Your task to perform on an android device: toggle notifications settings in the gmail app Image 0: 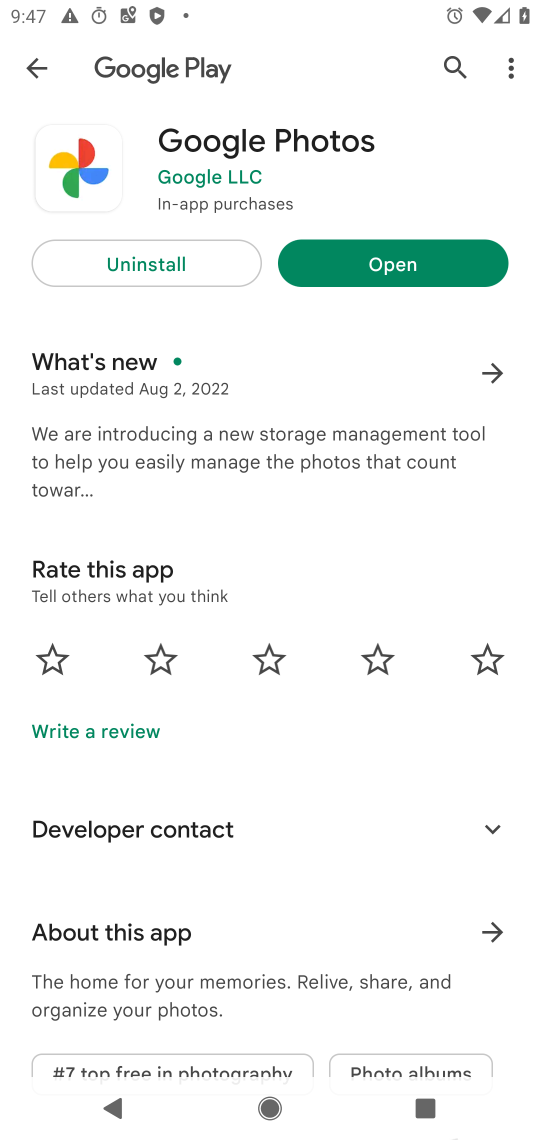
Step 0: press home button
Your task to perform on an android device: toggle notifications settings in the gmail app Image 1: 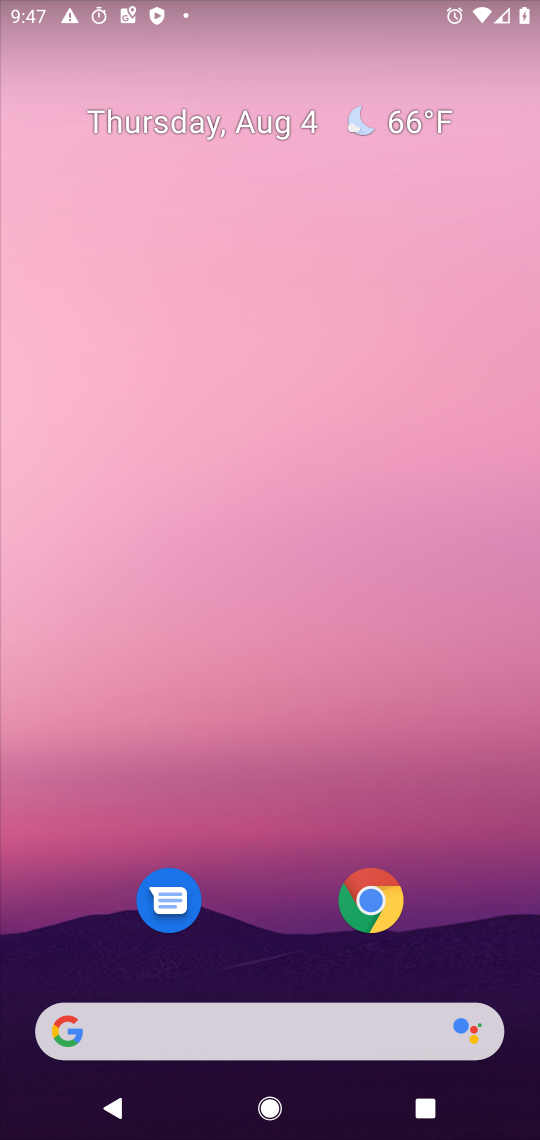
Step 1: drag from (264, 1031) to (309, 169)
Your task to perform on an android device: toggle notifications settings in the gmail app Image 2: 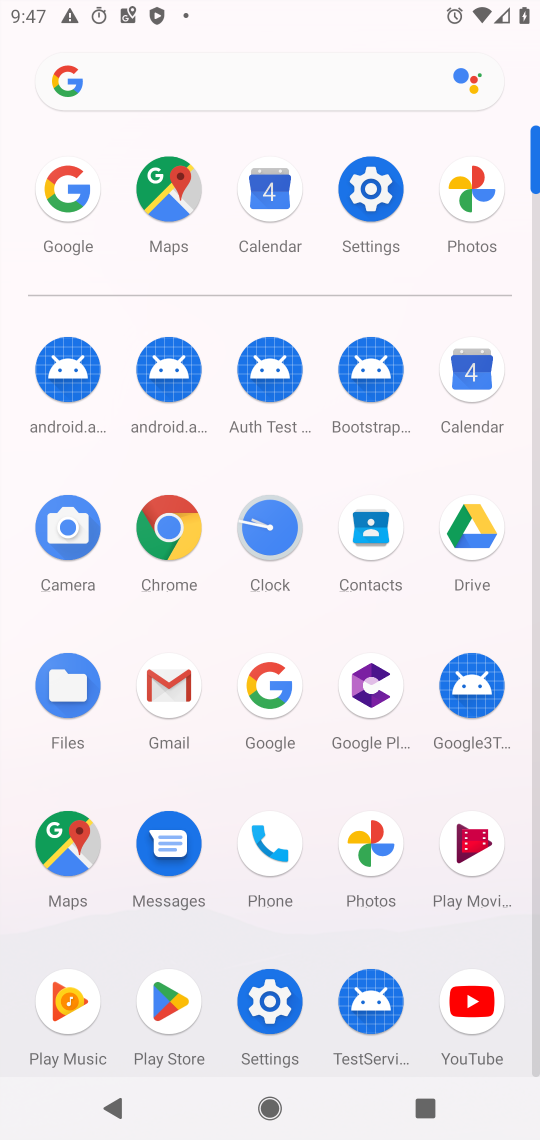
Step 2: click (168, 682)
Your task to perform on an android device: toggle notifications settings in the gmail app Image 3: 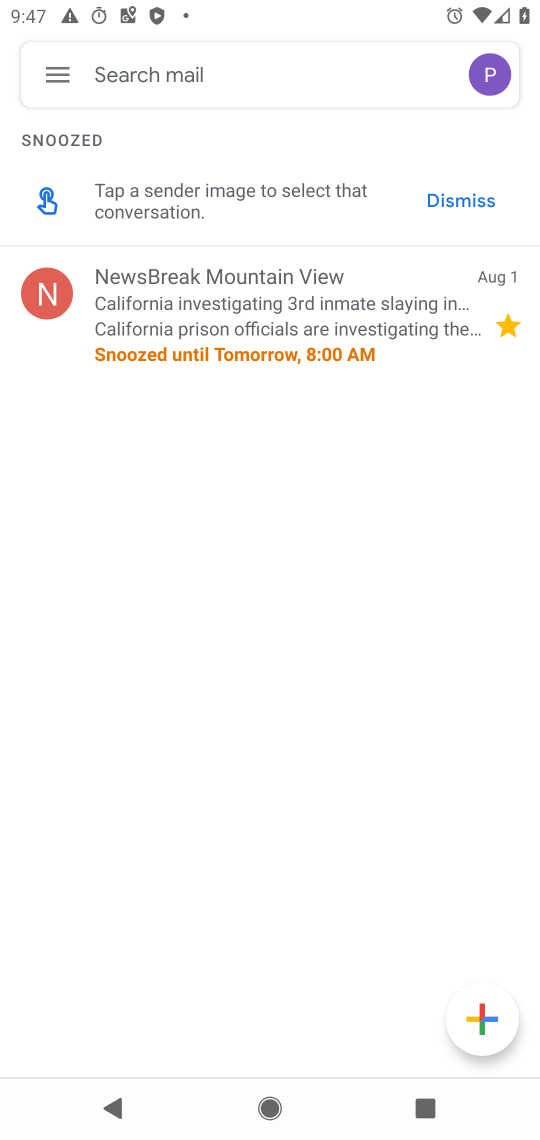
Step 3: click (57, 80)
Your task to perform on an android device: toggle notifications settings in the gmail app Image 4: 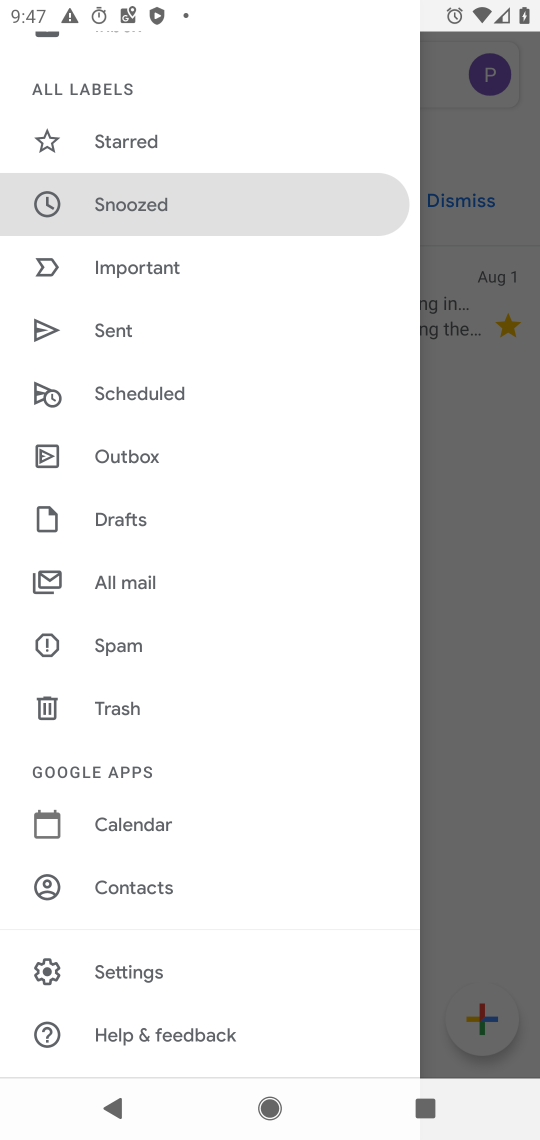
Step 4: drag from (134, 837) to (150, 724)
Your task to perform on an android device: toggle notifications settings in the gmail app Image 5: 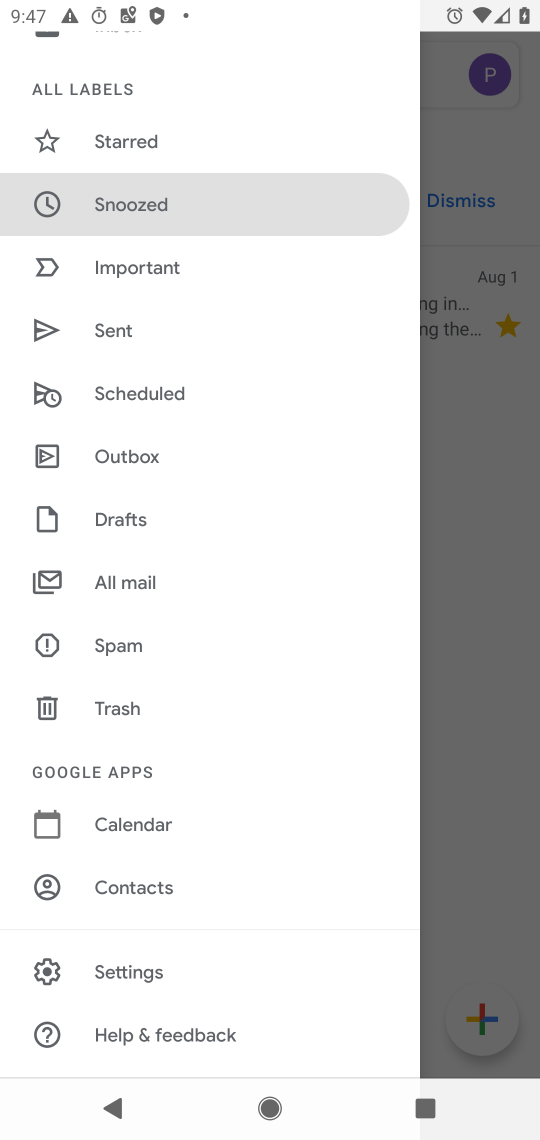
Step 5: click (130, 978)
Your task to perform on an android device: toggle notifications settings in the gmail app Image 6: 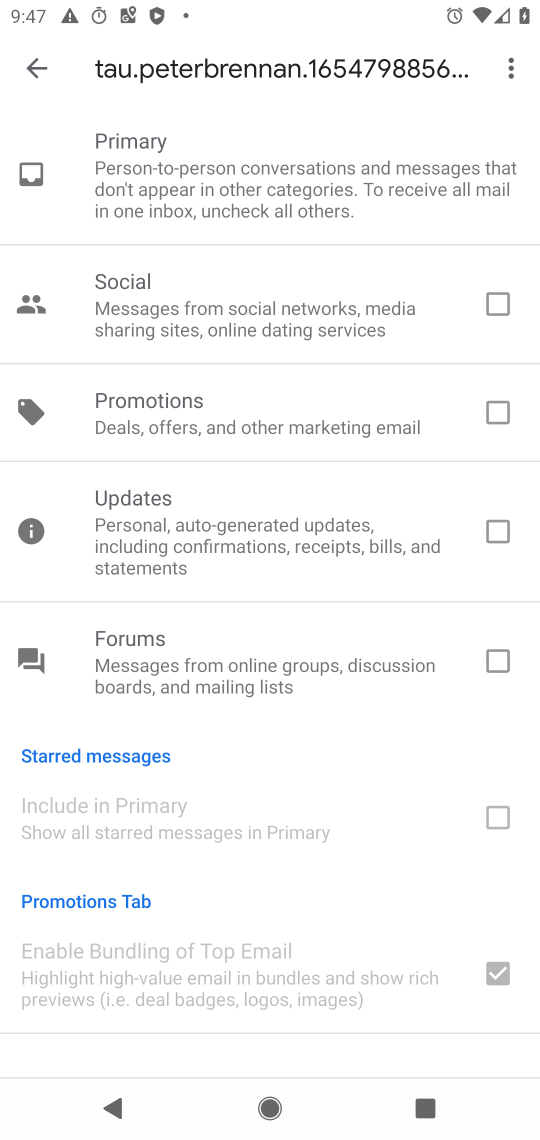
Step 6: press back button
Your task to perform on an android device: toggle notifications settings in the gmail app Image 7: 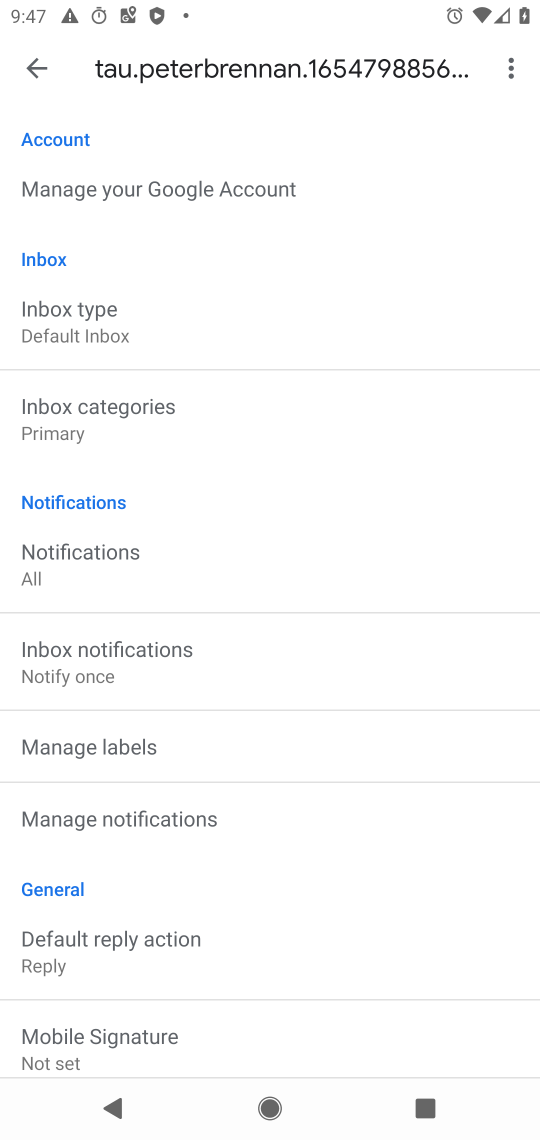
Step 7: click (94, 814)
Your task to perform on an android device: toggle notifications settings in the gmail app Image 8: 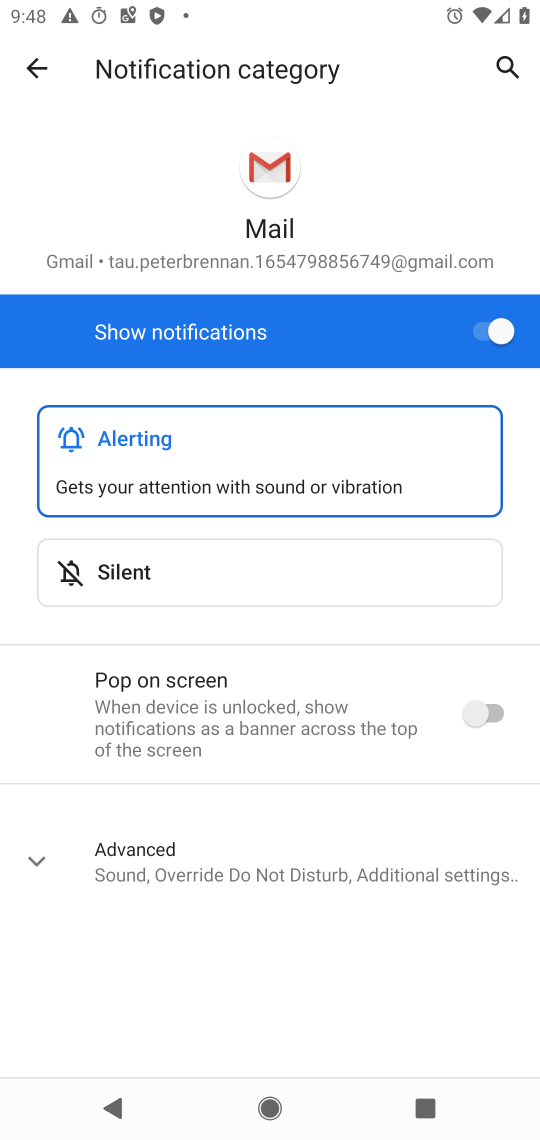
Step 8: click (490, 325)
Your task to perform on an android device: toggle notifications settings in the gmail app Image 9: 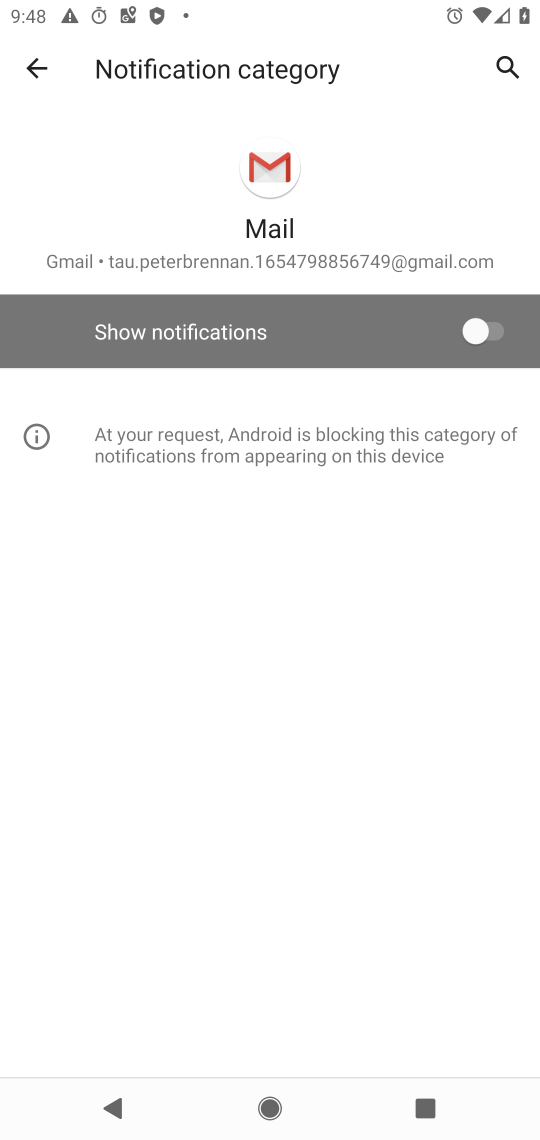
Step 9: task complete